Your task to perform on an android device: star an email in the gmail app Image 0: 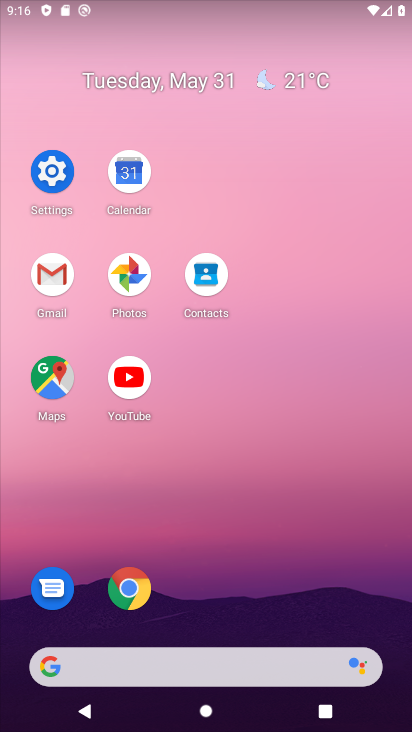
Step 0: click (57, 262)
Your task to perform on an android device: star an email in the gmail app Image 1: 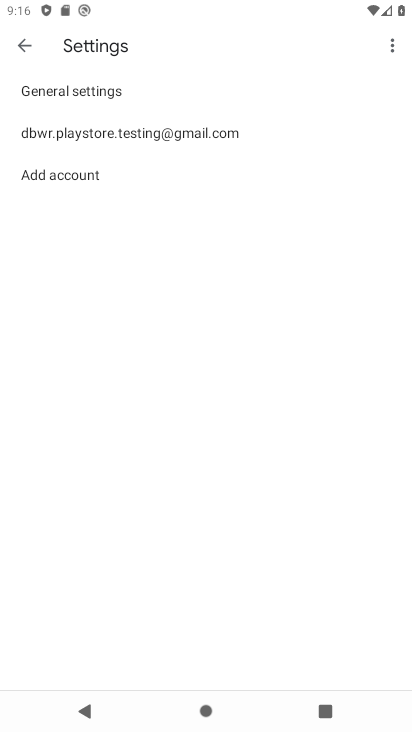
Step 1: click (37, 43)
Your task to perform on an android device: star an email in the gmail app Image 2: 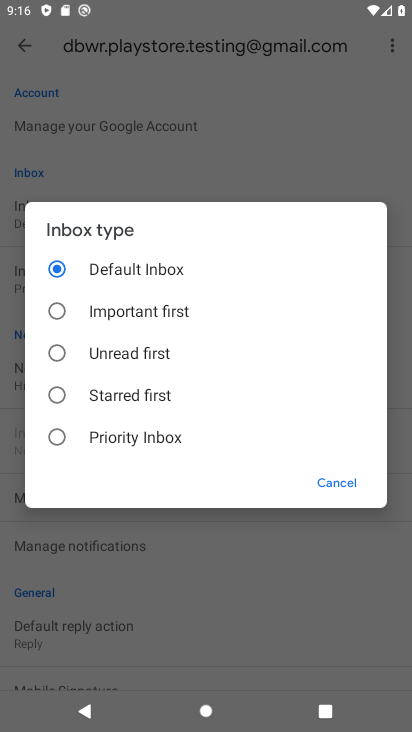
Step 2: click (342, 488)
Your task to perform on an android device: star an email in the gmail app Image 3: 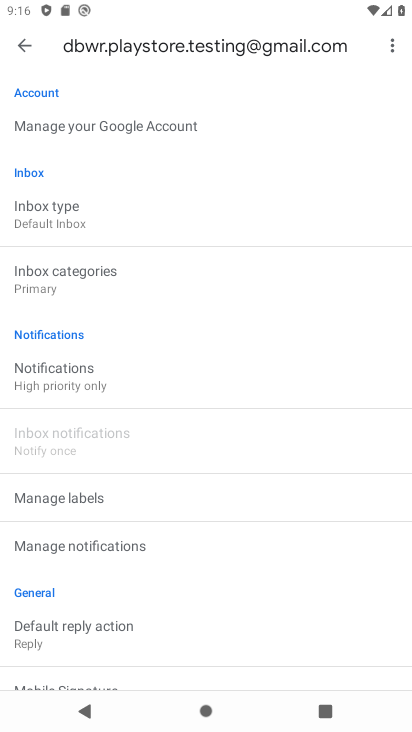
Step 3: drag from (212, 571) to (222, 178)
Your task to perform on an android device: star an email in the gmail app Image 4: 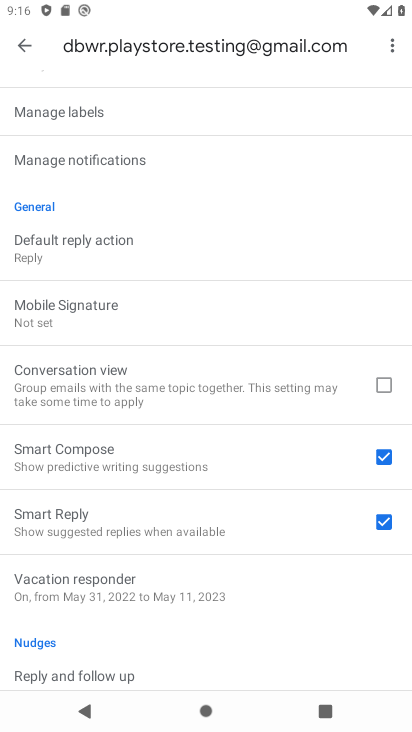
Step 4: drag from (147, 561) to (176, 172)
Your task to perform on an android device: star an email in the gmail app Image 5: 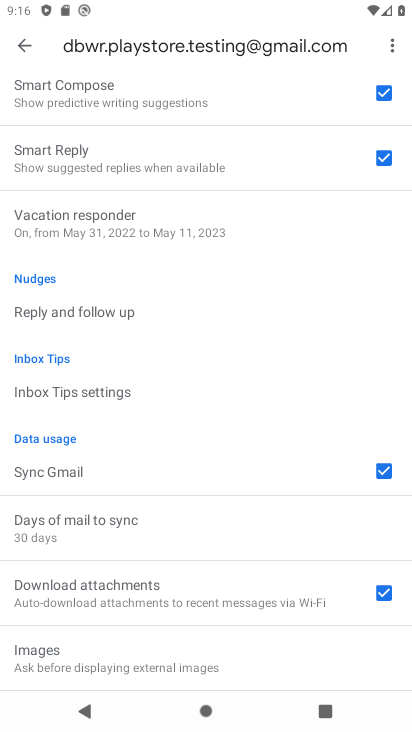
Step 5: click (20, 49)
Your task to perform on an android device: star an email in the gmail app Image 6: 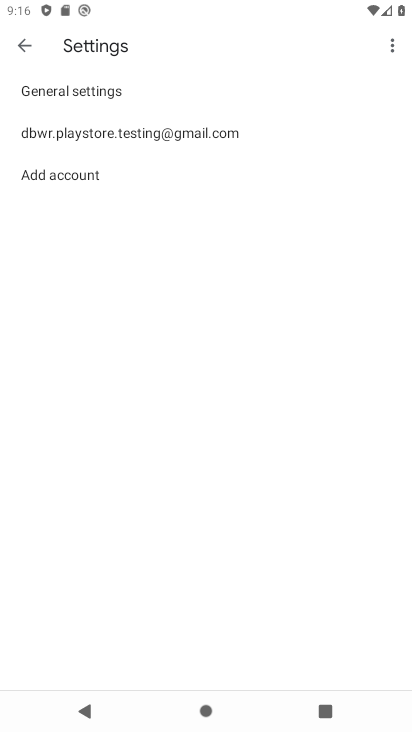
Step 6: click (20, 48)
Your task to perform on an android device: star an email in the gmail app Image 7: 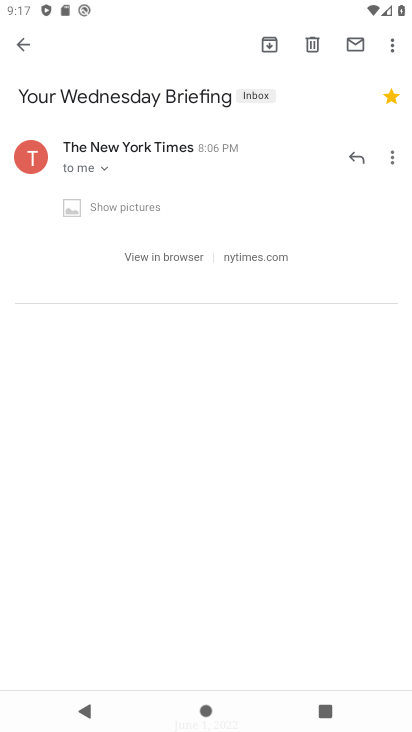
Step 7: task complete